Your task to perform on an android device: open the mobile data screen to see how much data has been used Image 0: 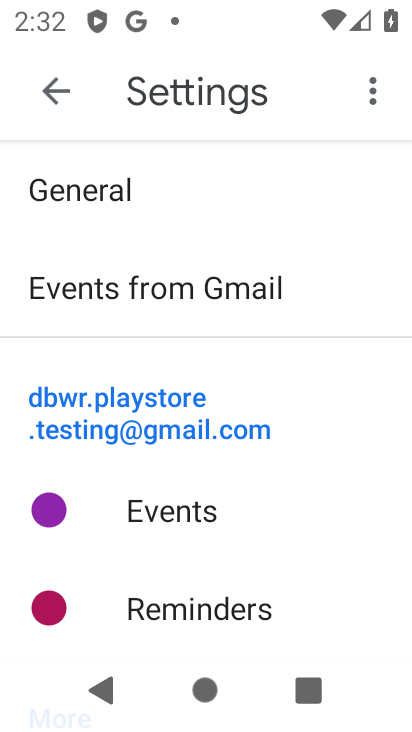
Step 0: press home button
Your task to perform on an android device: open the mobile data screen to see how much data has been used Image 1: 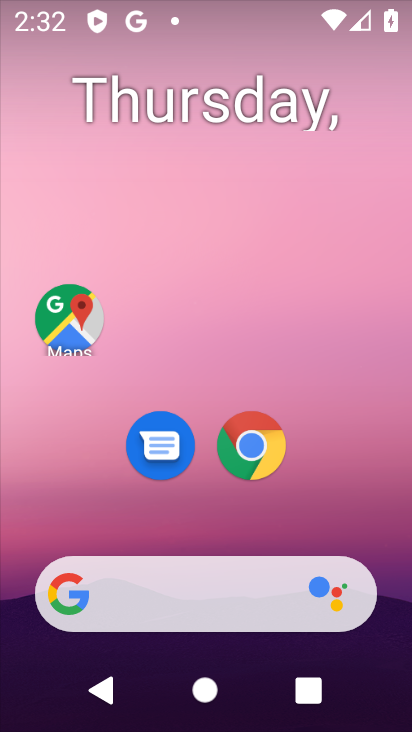
Step 1: drag from (196, 395) to (264, 3)
Your task to perform on an android device: open the mobile data screen to see how much data has been used Image 2: 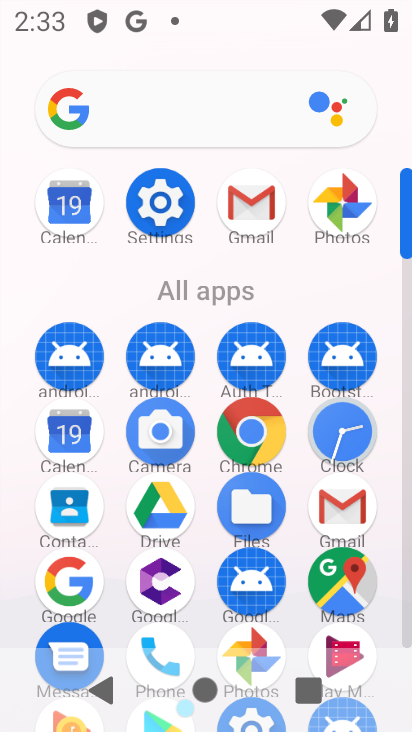
Step 2: click (166, 216)
Your task to perform on an android device: open the mobile data screen to see how much data has been used Image 3: 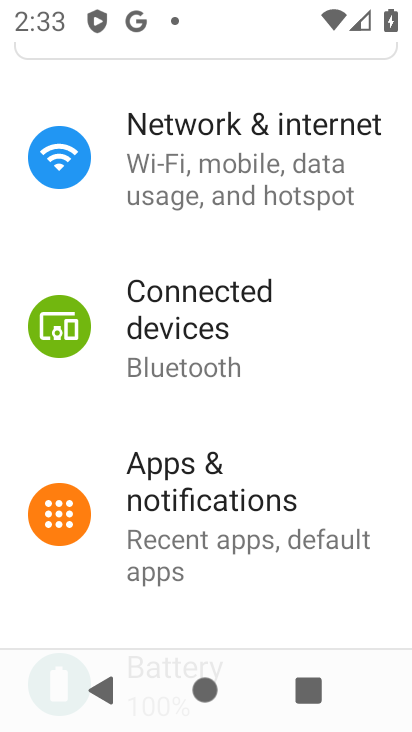
Step 3: click (267, 210)
Your task to perform on an android device: open the mobile data screen to see how much data has been used Image 4: 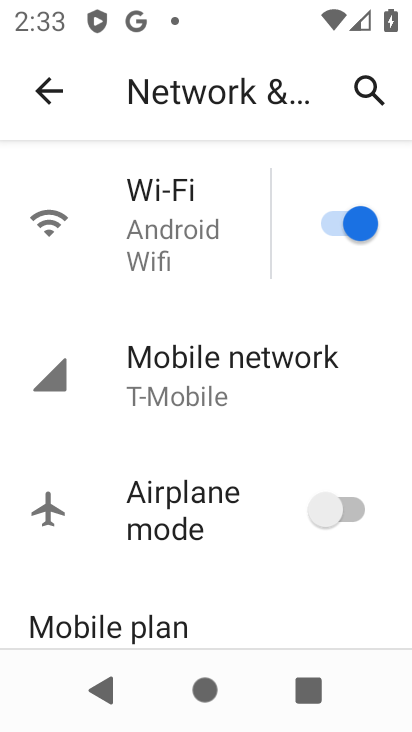
Step 4: drag from (226, 479) to (243, 342)
Your task to perform on an android device: open the mobile data screen to see how much data has been used Image 5: 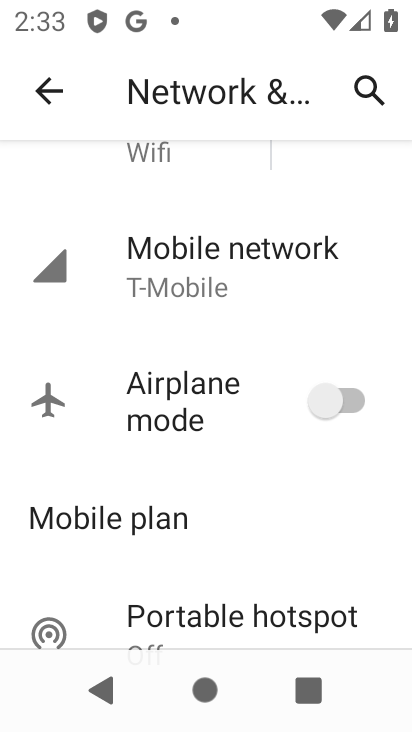
Step 5: click (200, 292)
Your task to perform on an android device: open the mobile data screen to see how much data has been used Image 6: 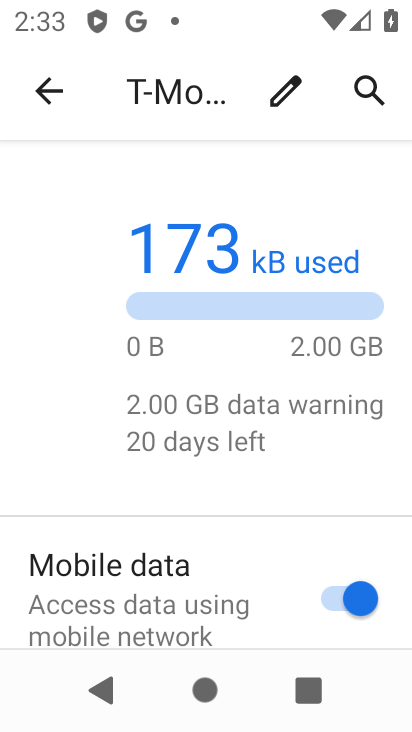
Step 6: drag from (196, 490) to (223, 324)
Your task to perform on an android device: open the mobile data screen to see how much data has been used Image 7: 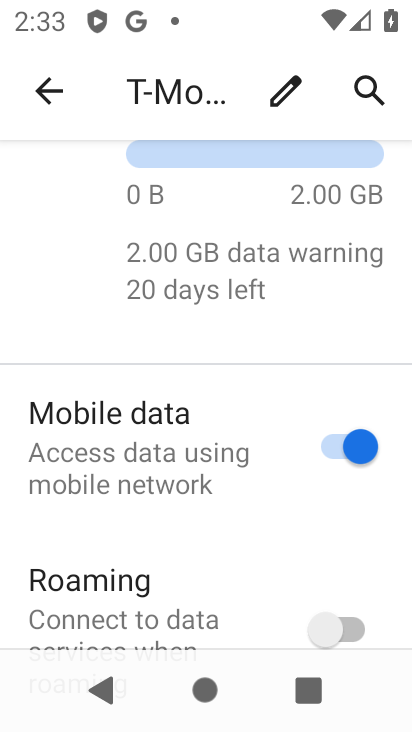
Step 7: drag from (198, 604) to (255, 298)
Your task to perform on an android device: open the mobile data screen to see how much data has been used Image 8: 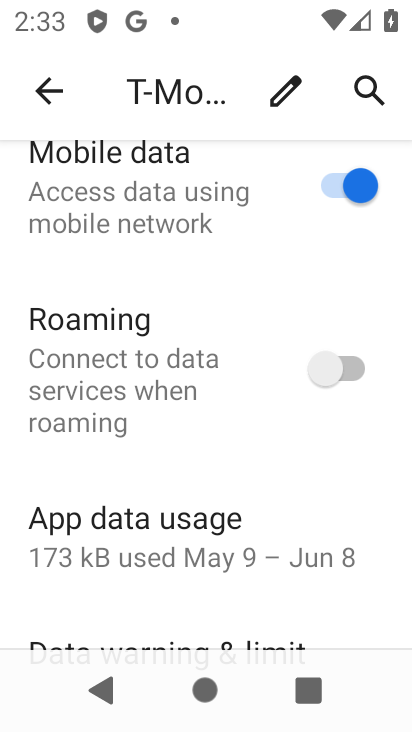
Step 8: click (239, 549)
Your task to perform on an android device: open the mobile data screen to see how much data has been used Image 9: 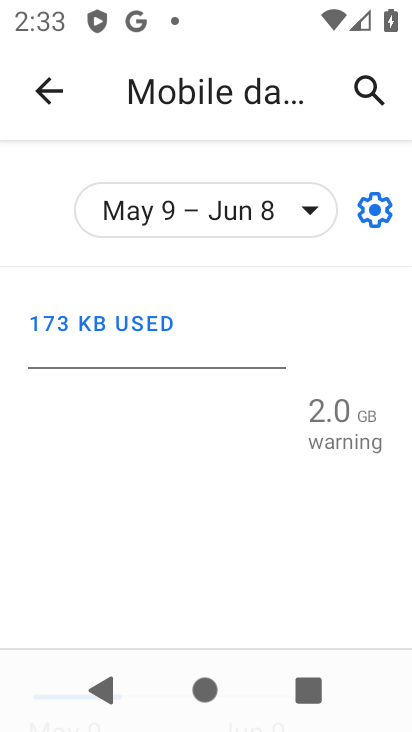
Step 9: task complete